Your task to perform on an android device: star an email in the gmail app Image 0: 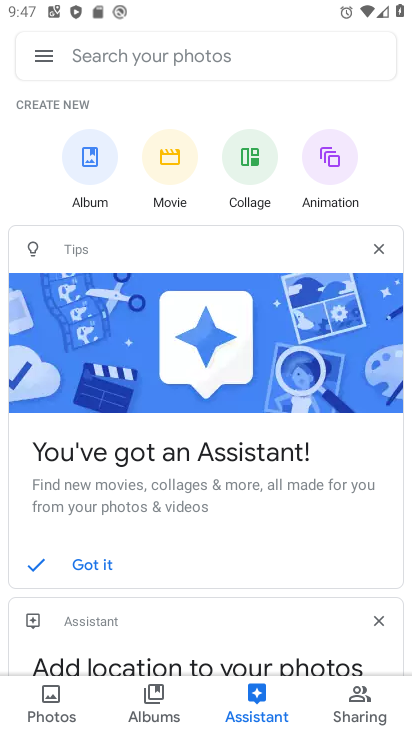
Step 0: press home button
Your task to perform on an android device: star an email in the gmail app Image 1: 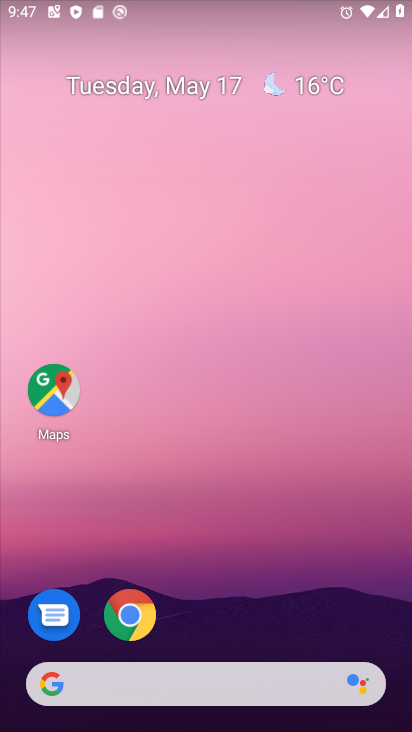
Step 1: drag from (236, 607) to (248, 48)
Your task to perform on an android device: star an email in the gmail app Image 2: 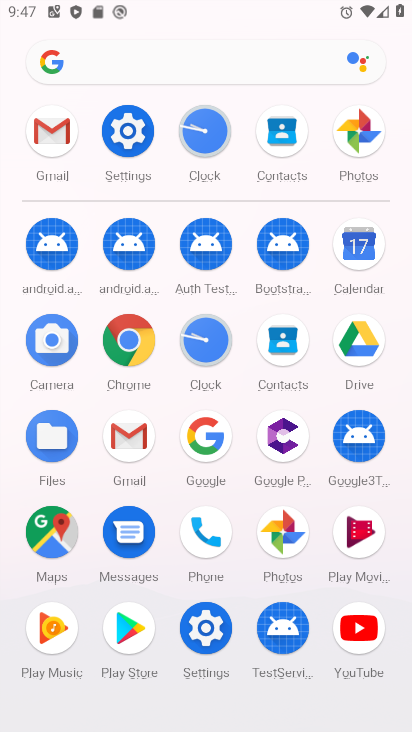
Step 2: click (143, 437)
Your task to perform on an android device: star an email in the gmail app Image 3: 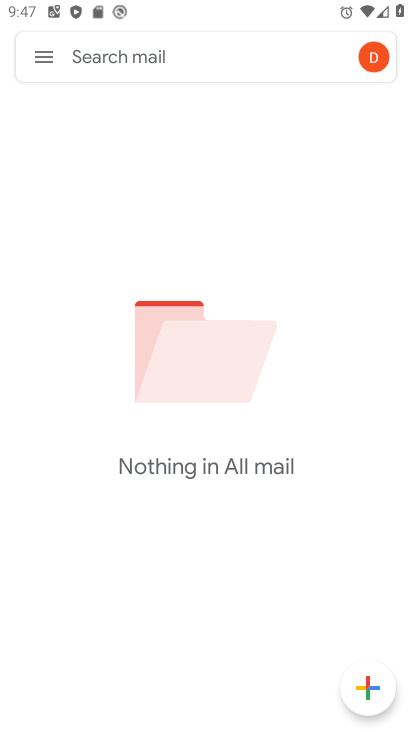
Step 3: click (43, 58)
Your task to perform on an android device: star an email in the gmail app Image 4: 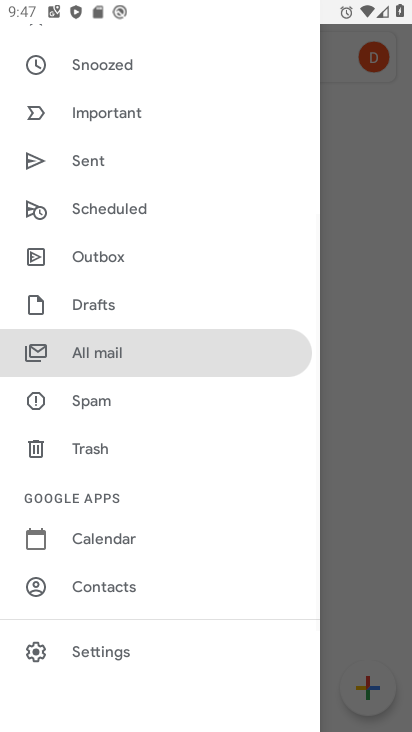
Step 4: task complete